Your task to perform on an android device: Open internet settings Image 0: 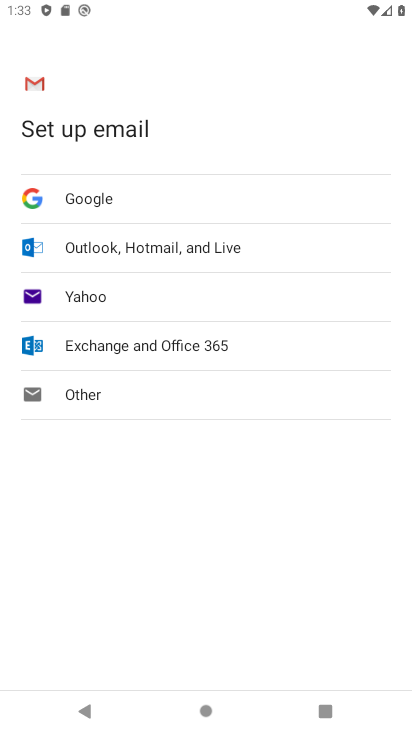
Step 0: press home button
Your task to perform on an android device: Open internet settings Image 1: 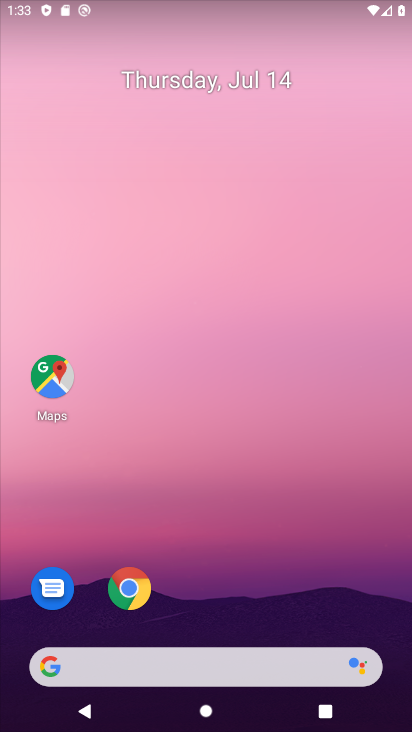
Step 1: drag from (138, 709) to (204, 21)
Your task to perform on an android device: Open internet settings Image 2: 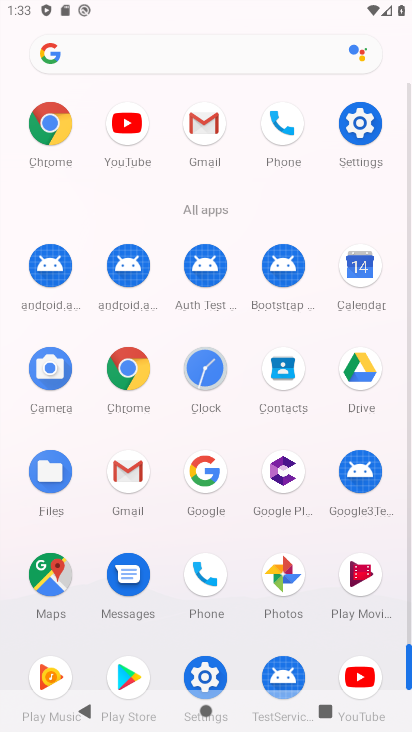
Step 2: click (366, 133)
Your task to perform on an android device: Open internet settings Image 3: 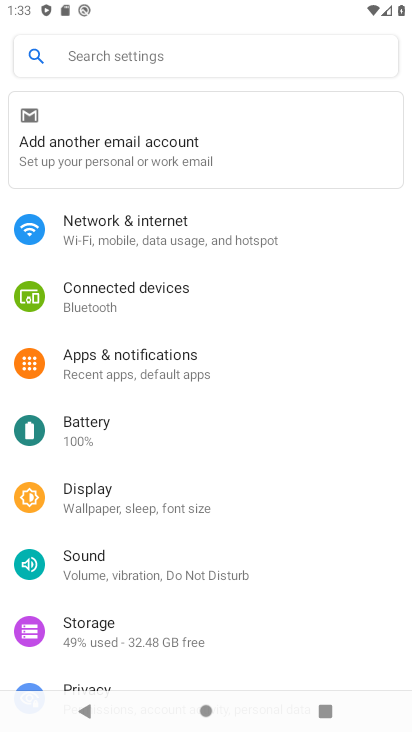
Step 3: click (195, 222)
Your task to perform on an android device: Open internet settings Image 4: 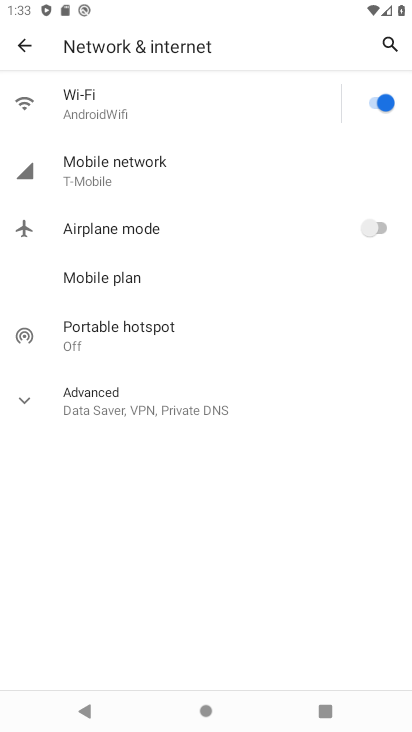
Step 4: task complete